Your task to perform on an android device: Search for vegetarian restaurants on Maps Image 0: 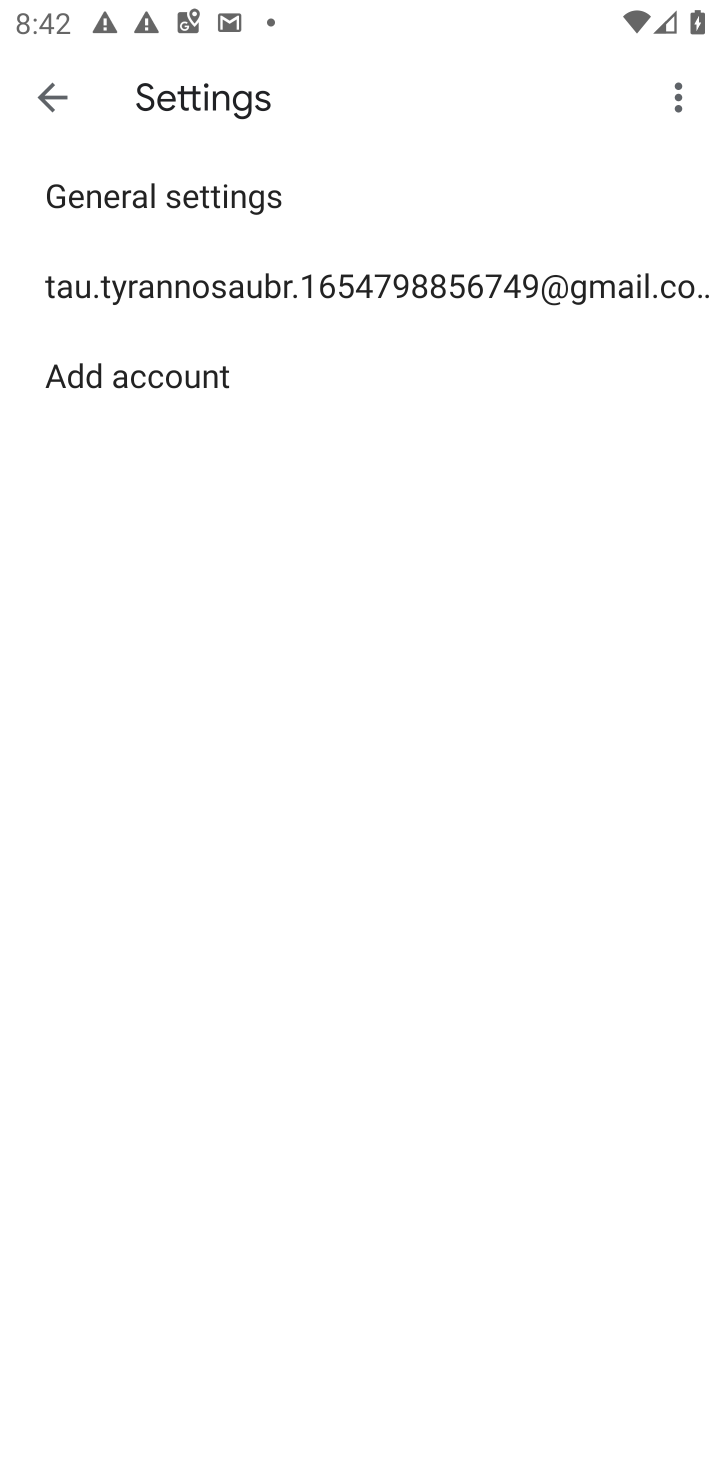
Step 0: press home button
Your task to perform on an android device: Search for vegetarian restaurants on Maps Image 1: 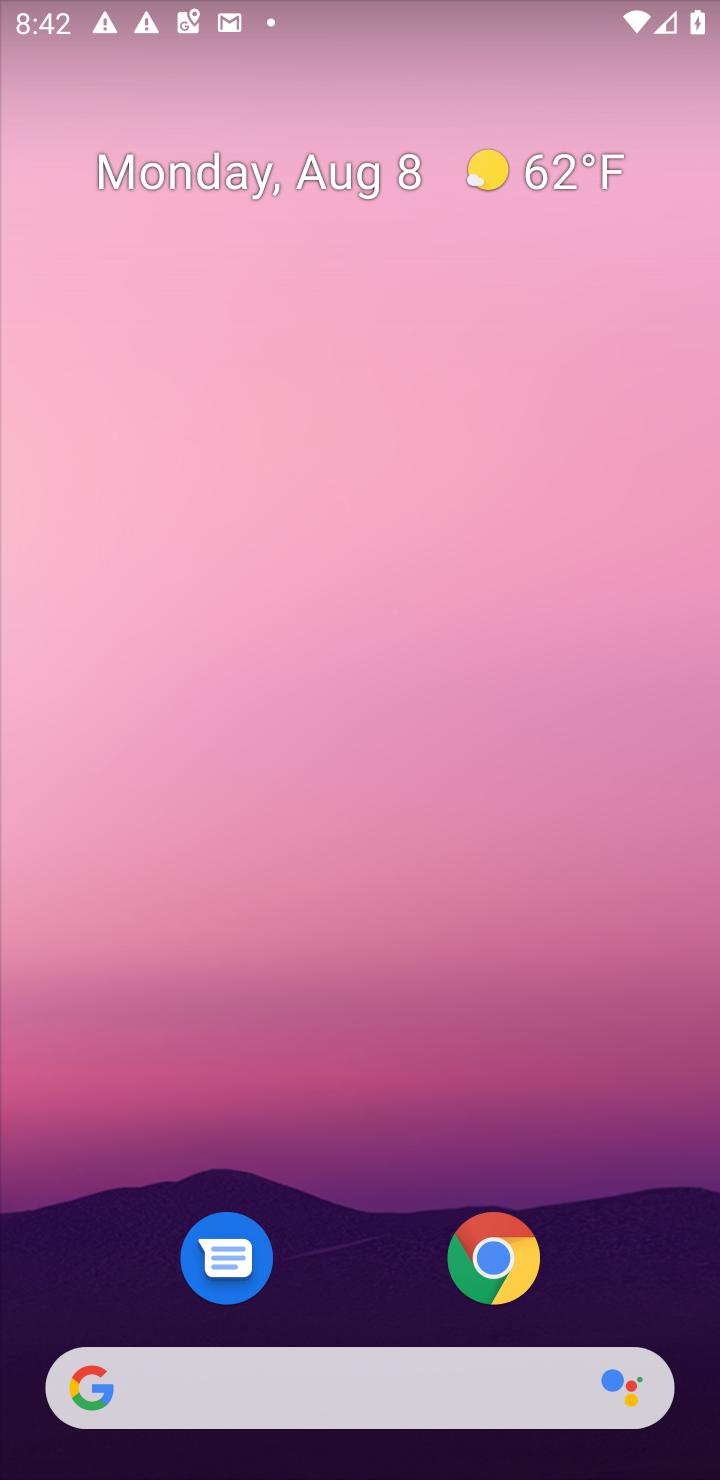
Step 1: click (341, 1375)
Your task to perform on an android device: Search for vegetarian restaurants on Maps Image 2: 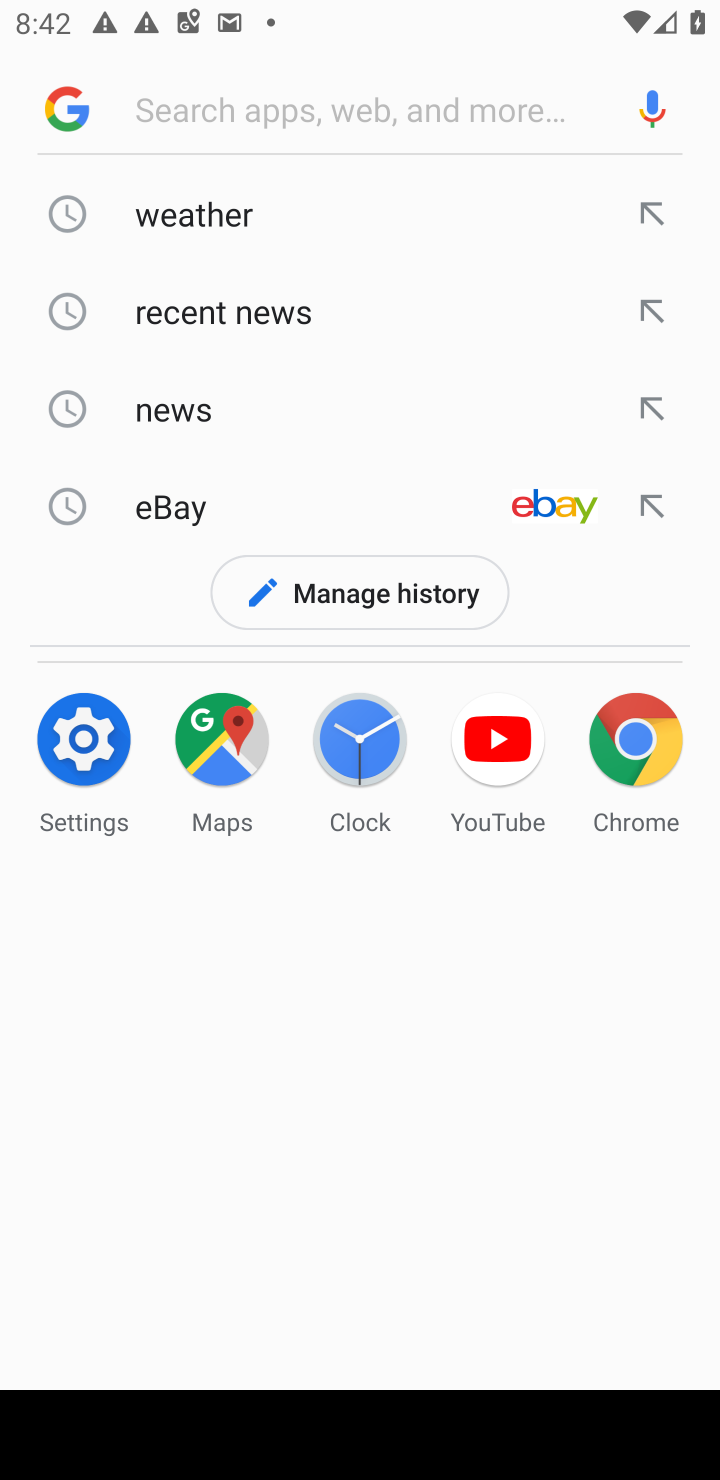
Step 2: type "vegetarian restaurants"
Your task to perform on an android device: Search for vegetarian restaurants on Maps Image 3: 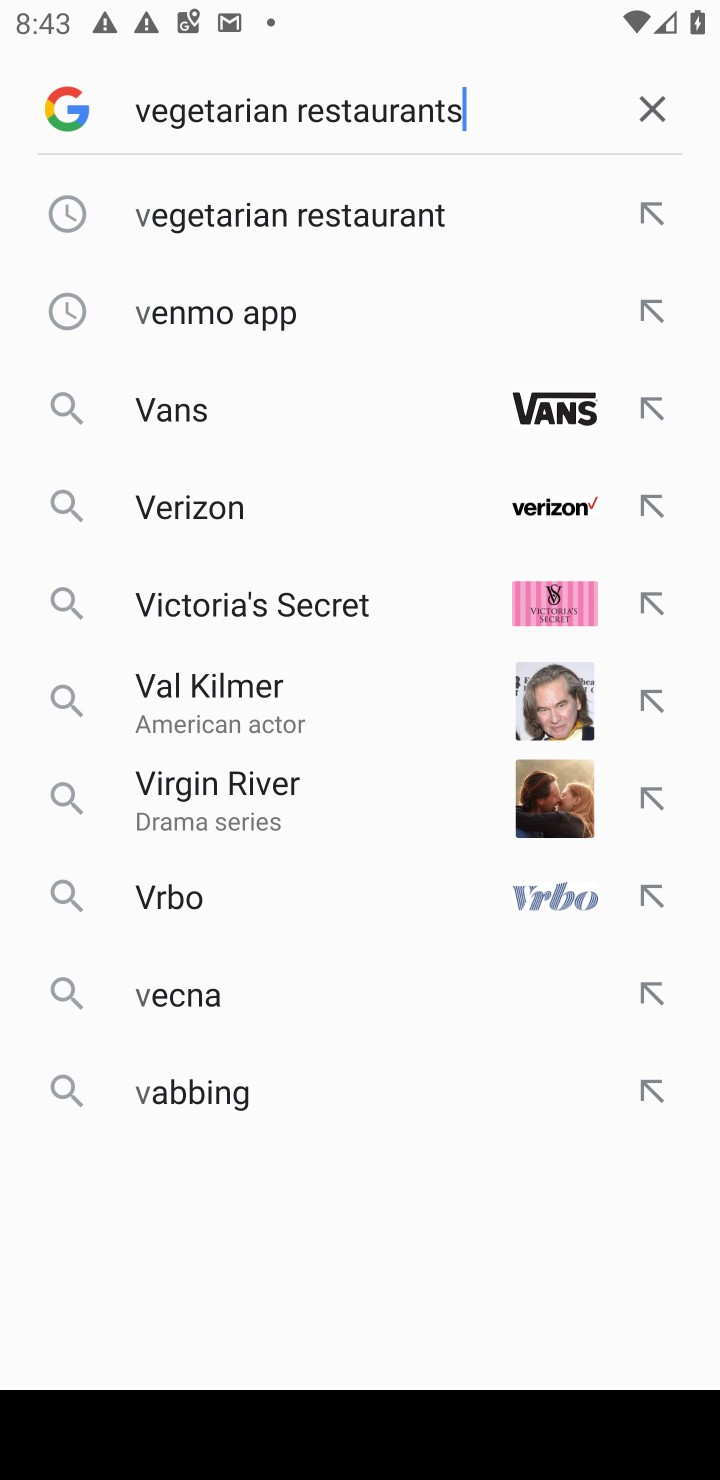
Step 3: press enter
Your task to perform on an android device: Search for vegetarian restaurants on Maps Image 4: 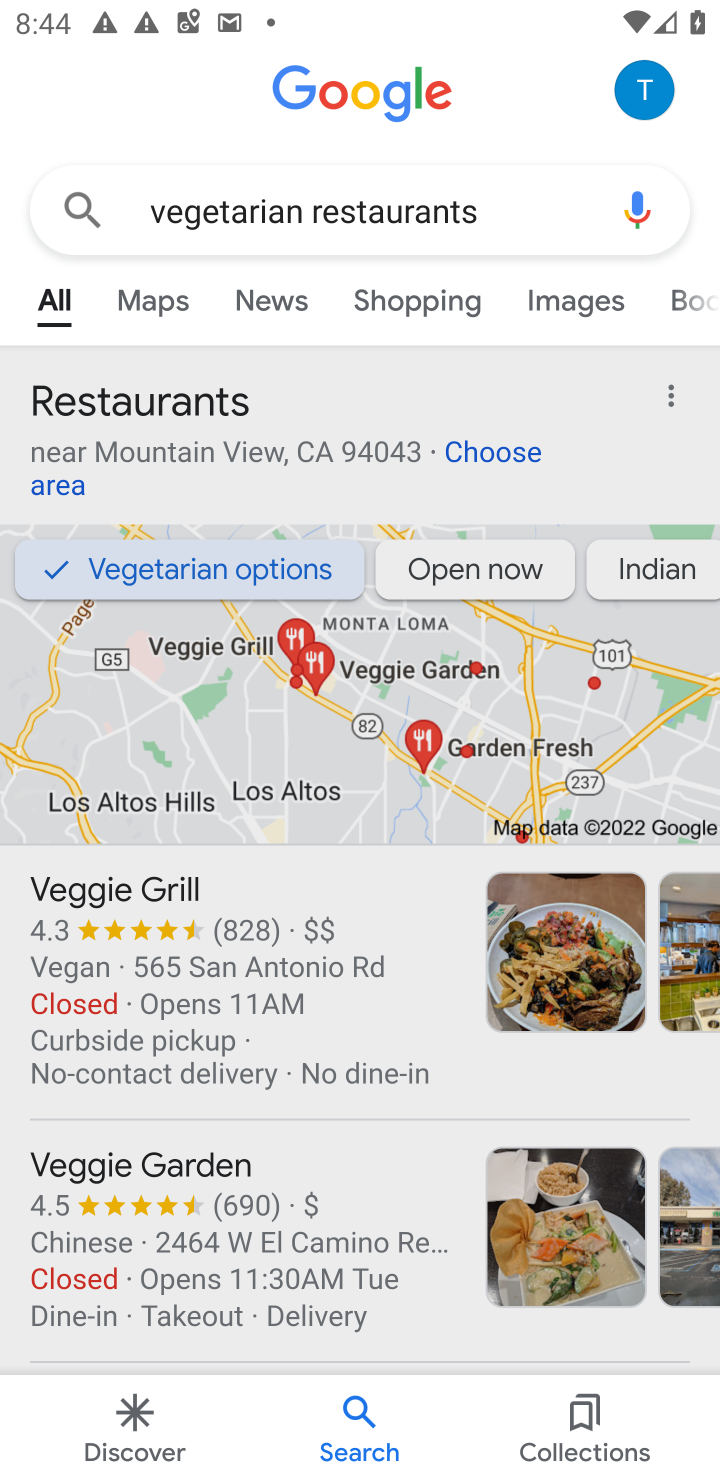
Step 4: task complete